Your task to perform on an android device: open chrome privacy settings Image 0: 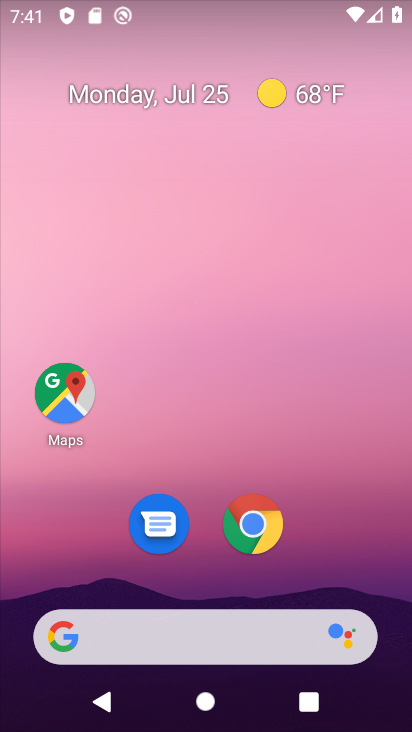
Step 0: click (267, 528)
Your task to perform on an android device: open chrome privacy settings Image 1: 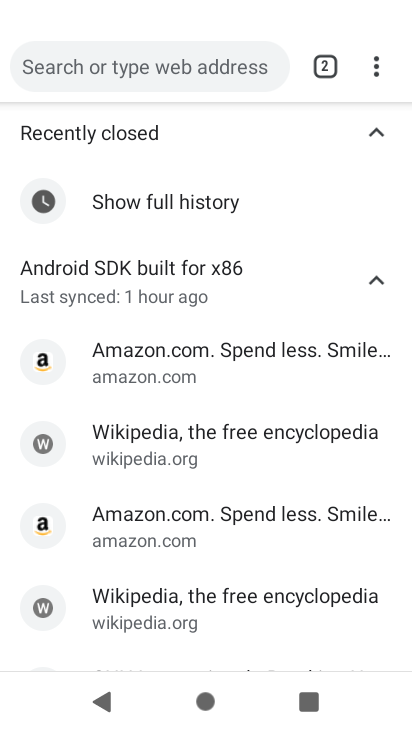
Step 1: click (375, 72)
Your task to perform on an android device: open chrome privacy settings Image 2: 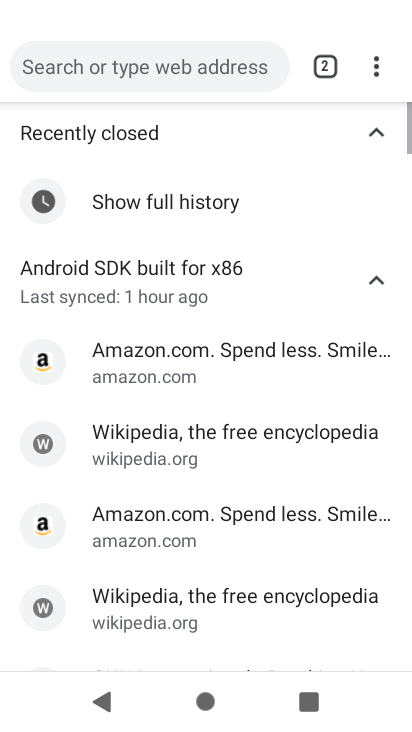
Step 2: click (375, 72)
Your task to perform on an android device: open chrome privacy settings Image 3: 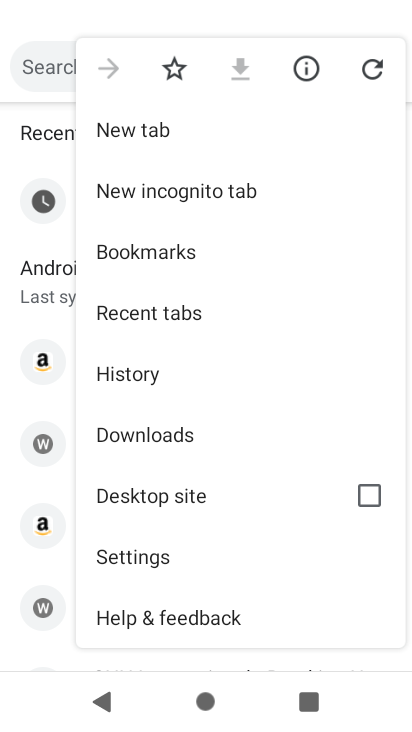
Step 3: click (159, 557)
Your task to perform on an android device: open chrome privacy settings Image 4: 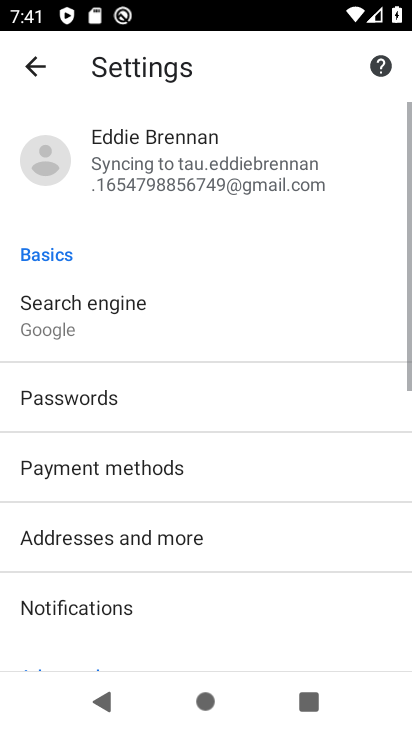
Step 4: drag from (222, 500) to (223, 328)
Your task to perform on an android device: open chrome privacy settings Image 5: 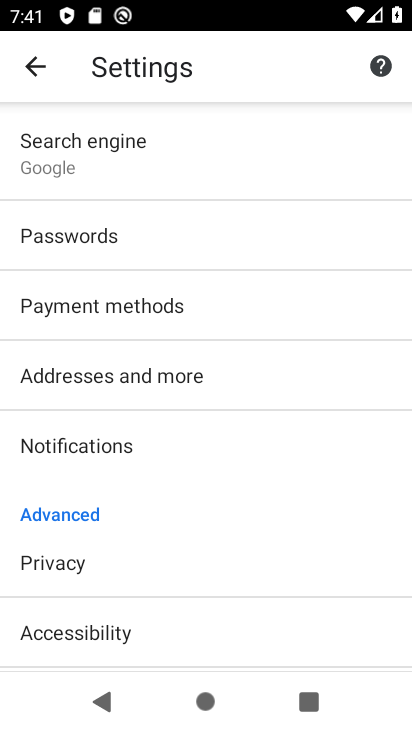
Step 5: click (78, 563)
Your task to perform on an android device: open chrome privacy settings Image 6: 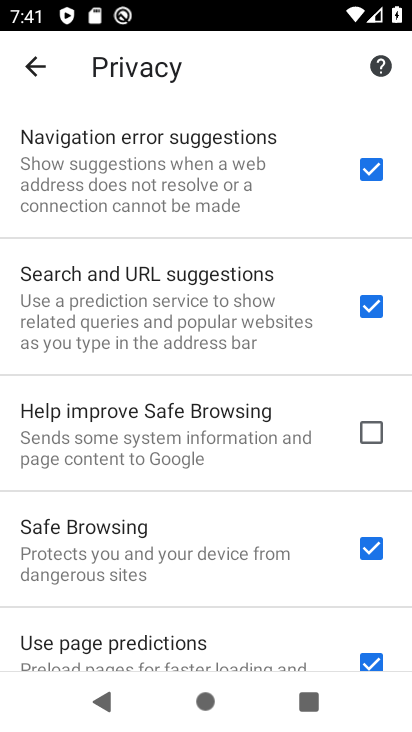
Step 6: task complete